Your task to perform on an android device: Search for flights from Mexico city to Boston Image 0: 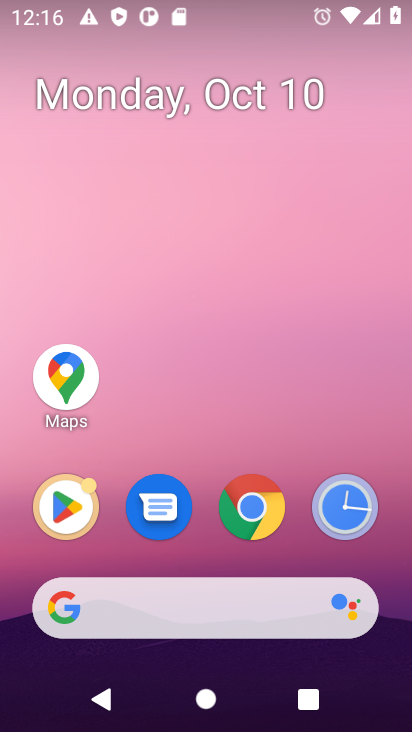
Step 0: press home button
Your task to perform on an android device: Search for flights from Mexico city to Boston Image 1: 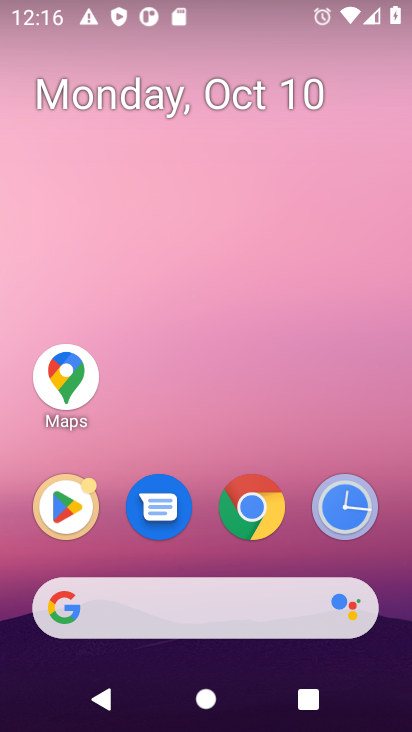
Step 1: click (247, 588)
Your task to perform on an android device: Search for flights from Mexico city to Boston Image 2: 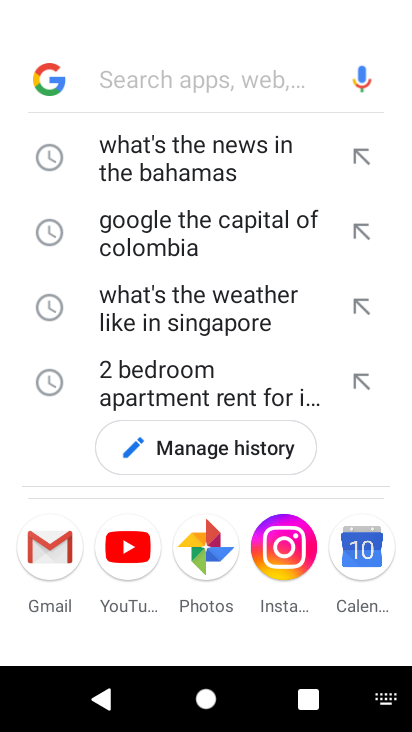
Step 2: type " flights from Mexico city to Boston"
Your task to perform on an android device: Search for flights from Mexico city to Boston Image 3: 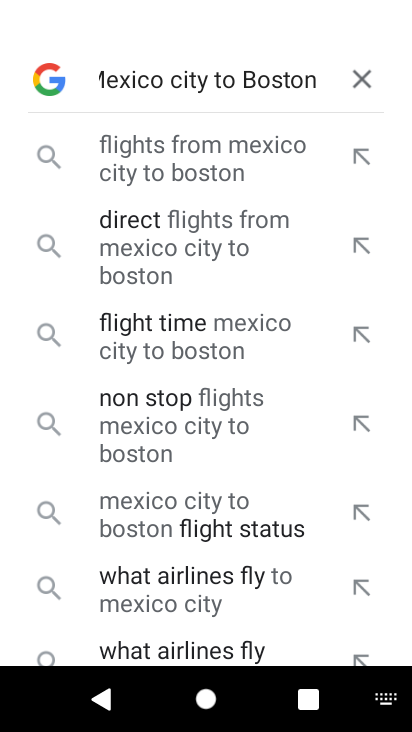
Step 3: press enter
Your task to perform on an android device: Search for flights from Mexico city to Boston Image 4: 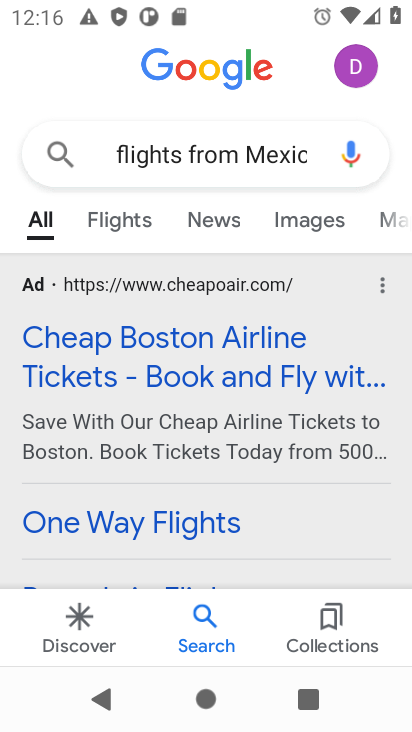
Step 4: drag from (286, 478) to (294, 303)
Your task to perform on an android device: Search for flights from Mexico city to Boston Image 5: 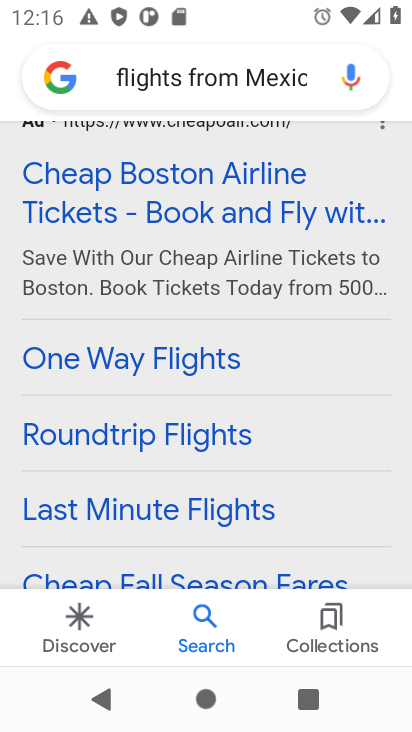
Step 5: drag from (300, 166) to (327, 466)
Your task to perform on an android device: Search for flights from Mexico city to Boston Image 6: 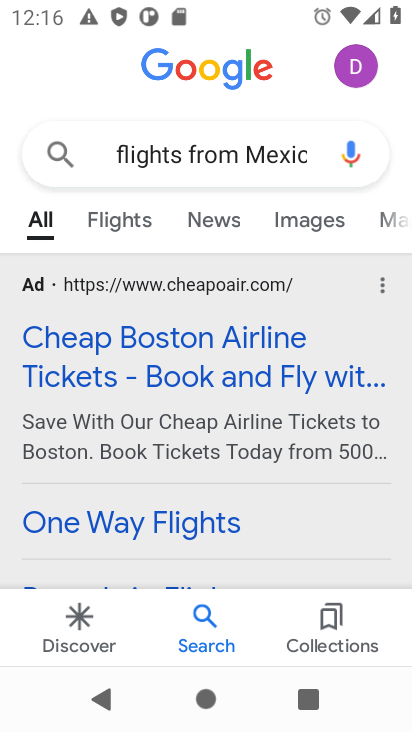
Step 6: drag from (299, 508) to (304, 264)
Your task to perform on an android device: Search for flights from Mexico city to Boston Image 7: 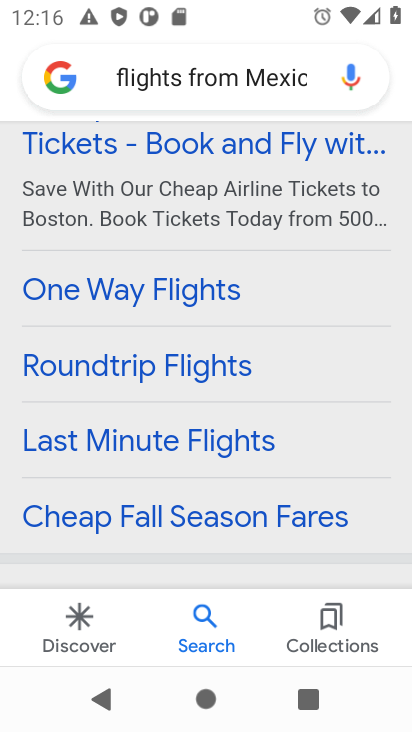
Step 7: drag from (272, 504) to (283, 209)
Your task to perform on an android device: Search for flights from Mexico city to Boston Image 8: 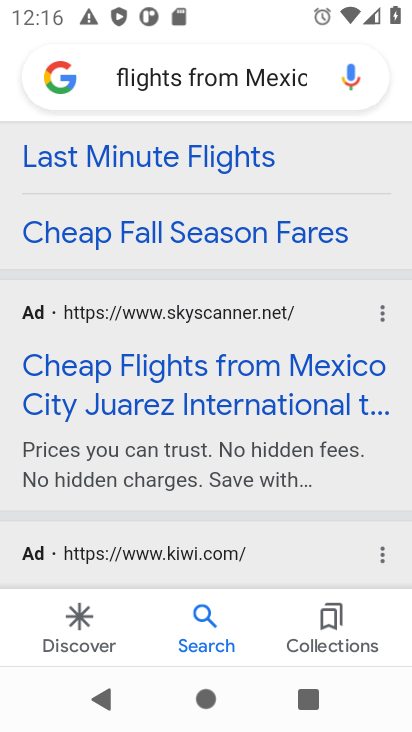
Step 8: drag from (253, 515) to (291, 172)
Your task to perform on an android device: Search for flights from Mexico city to Boston Image 9: 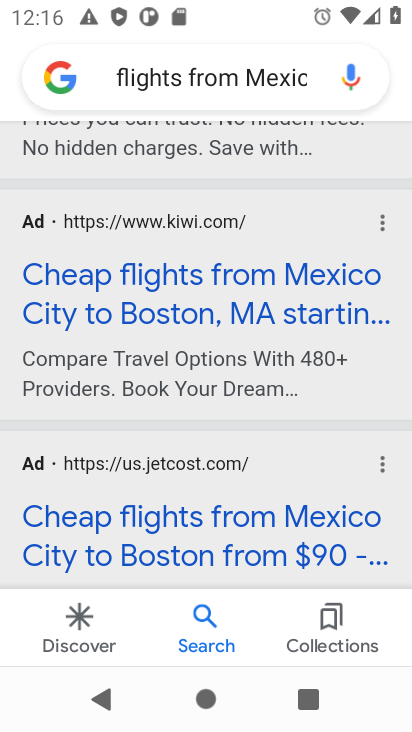
Step 9: drag from (261, 514) to (263, 187)
Your task to perform on an android device: Search for flights from Mexico city to Boston Image 10: 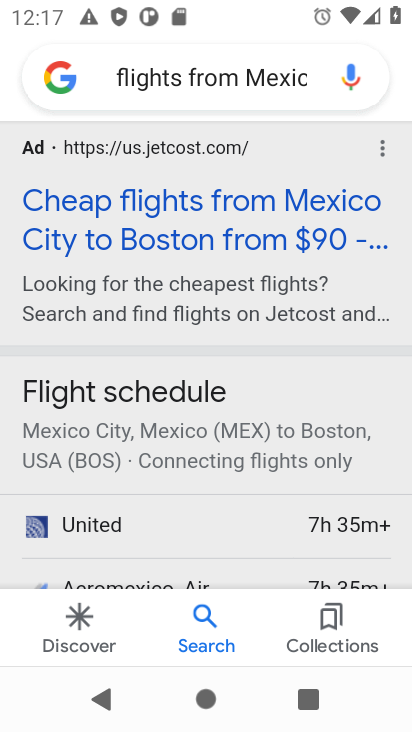
Step 10: drag from (190, 547) to (233, 250)
Your task to perform on an android device: Search for flights from Mexico city to Boston Image 11: 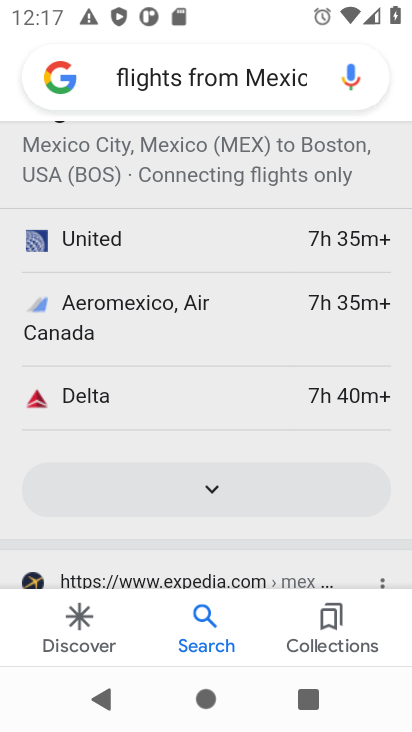
Step 11: click (206, 496)
Your task to perform on an android device: Search for flights from Mexico city to Boston Image 12: 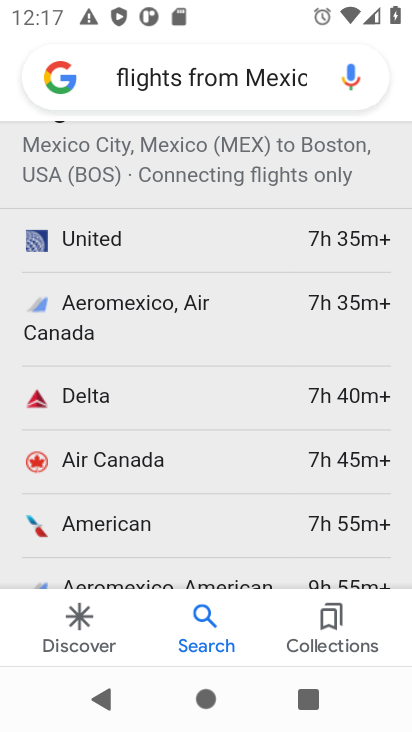
Step 12: task complete